Your task to perform on an android device: empty trash in the gmail app Image 0: 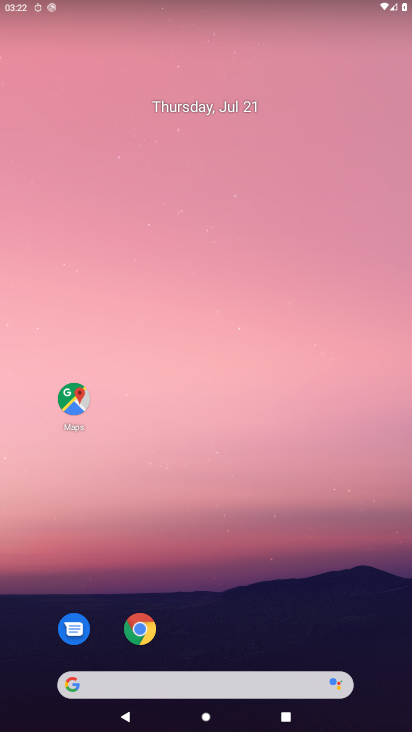
Step 0: drag from (49, 677) to (241, 54)
Your task to perform on an android device: empty trash in the gmail app Image 1: 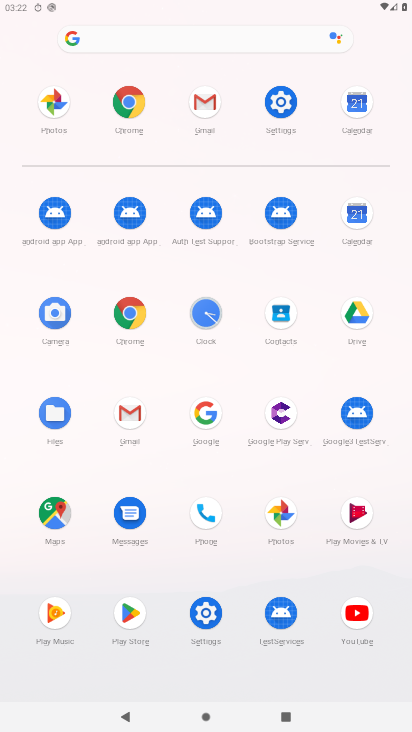
Step 1: click (154, 421)
Your task to perform on an android device: empty trash in the gmail app Image 2: 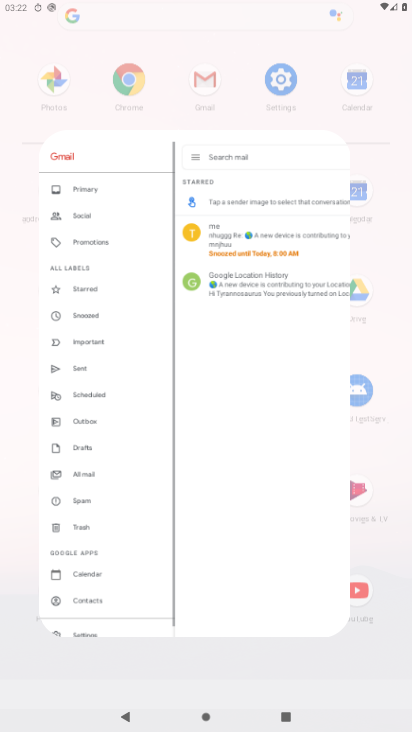
Step 2: click (145, 415)
Your task to perform on an android device: empty trash in the gmail app Image 3: 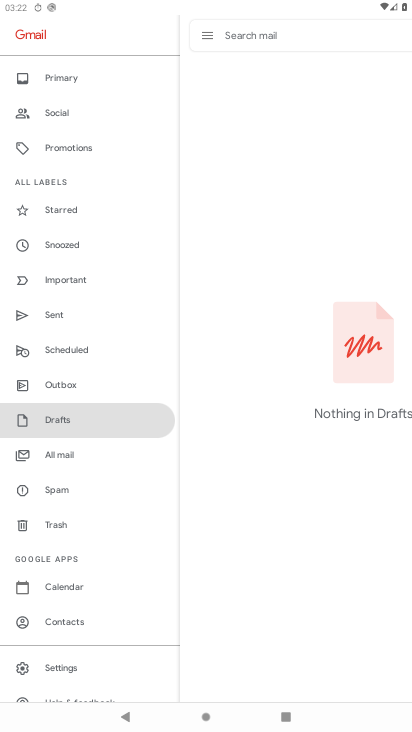
Step 3: click (49, 527)
Your task to perform on an android device: empty trash in the gmail app Image 4: 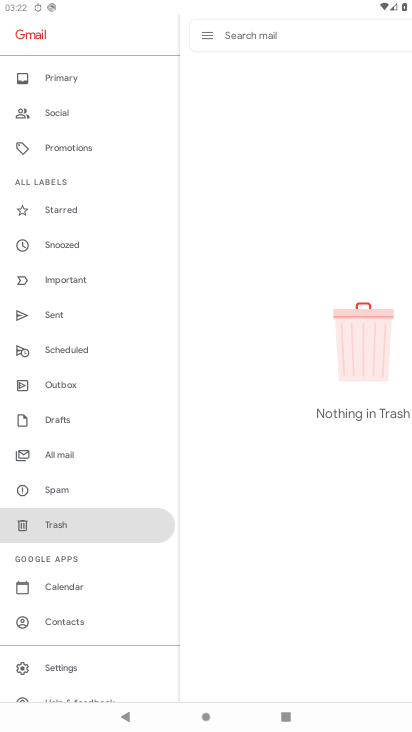
Step 4: task complete